Your task to perform on an android device: Open the calendar and show me this week's events? Image 0: 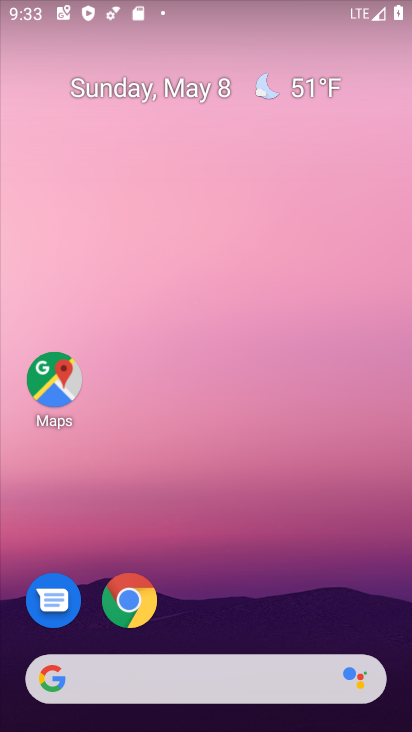
Step 0: drag from (327, 589) to (359, 10)
Your task to perform on an android device: Open the calendar and show me this week's events? Image 1: 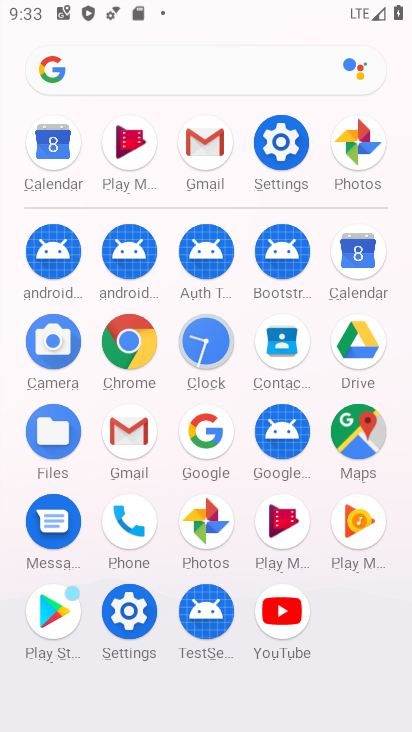
Step 1: click (358, 254)
Your task to perform on an android device: Open the calendar and show me this week's events? Image 2: 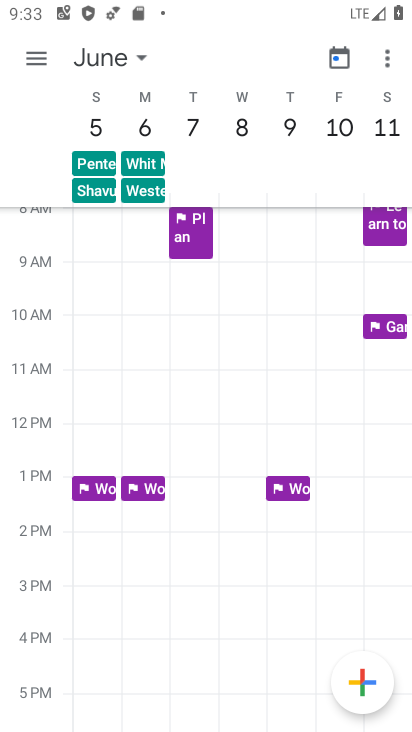
Step 2: click (138, 58)
Your task to perform on an android device: Open the calendar and show me this week's events? Image 3: 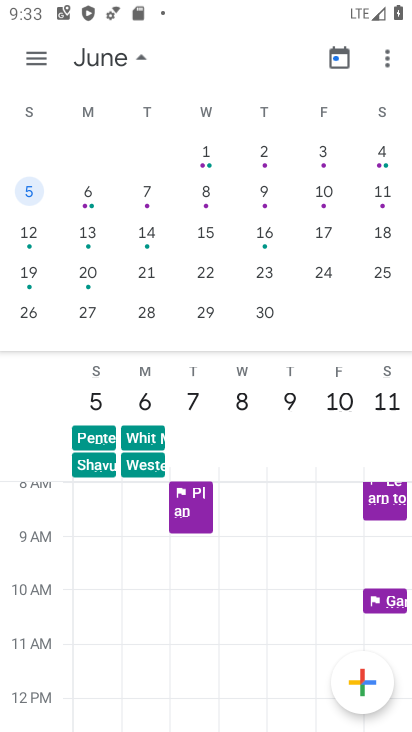
Step 3: drag from (122, 224) to (412, 185)
Your task to perform on an android device: Open the calendar and show me this week's events? Image 4: 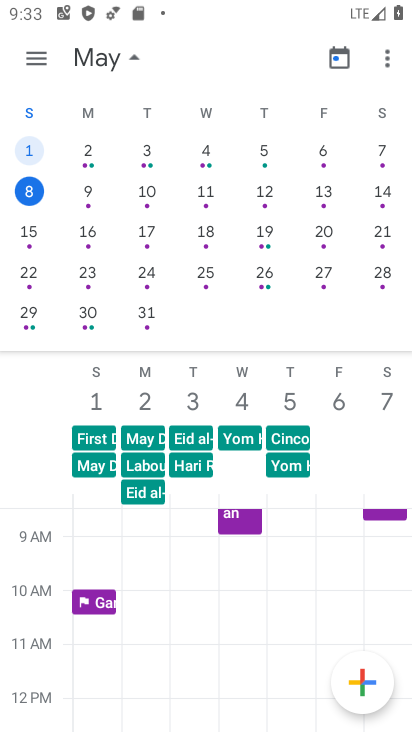
Step 4: click (35, 59)
Your task to perform on an android device: Open the calendar and show me this week's events? Image 5: 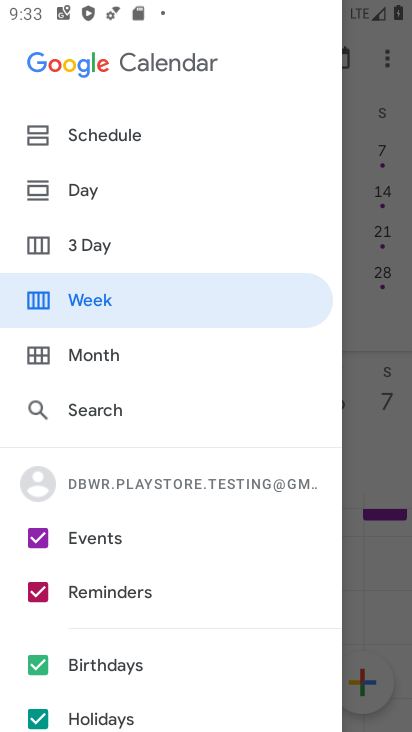
Step 5: click (83, 301)
Your task to perform on an android device: Open the calendar and show me this week's events? Image 6: 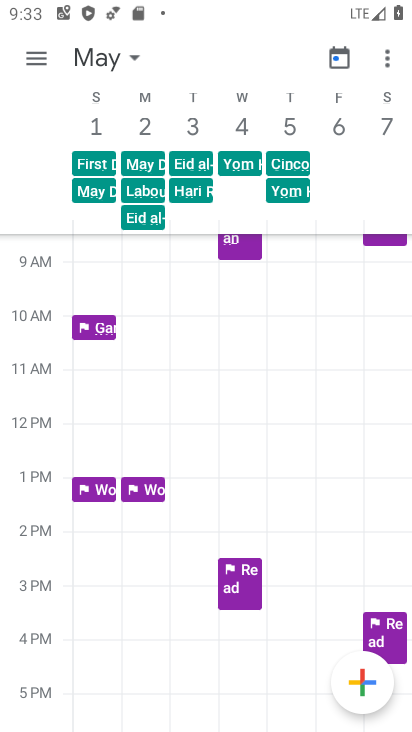
Step 6: task complete